Your task to perform on an android device: Open the web browser Image 0: 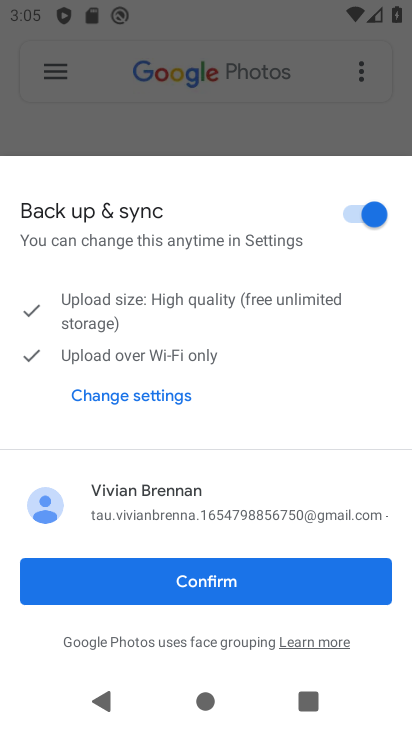
Step 0: press home button
Your task to perform on an android device: Open the web browser Image 1: 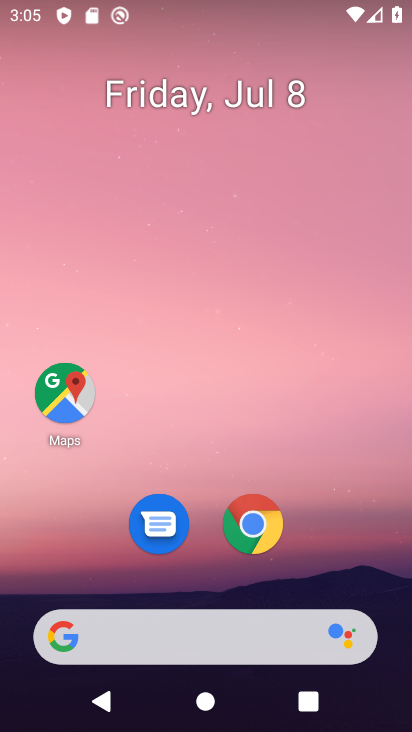
Step 1: click (208, 633)
Your task to perform on an android device: Open the web browser Image 2: 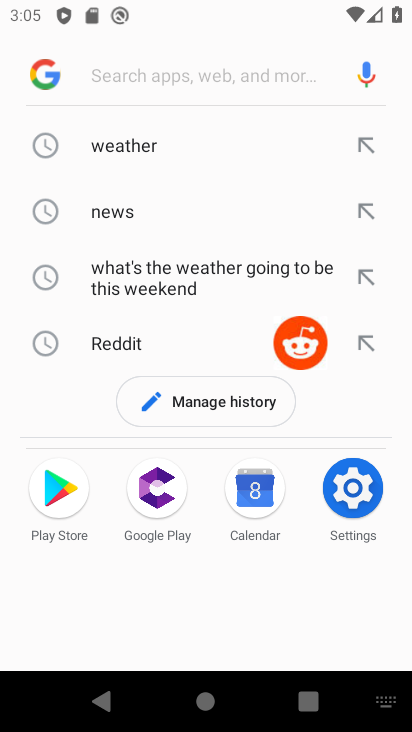
Step 2: task complete